Your task to perform on an android device: Open Google Image 0: 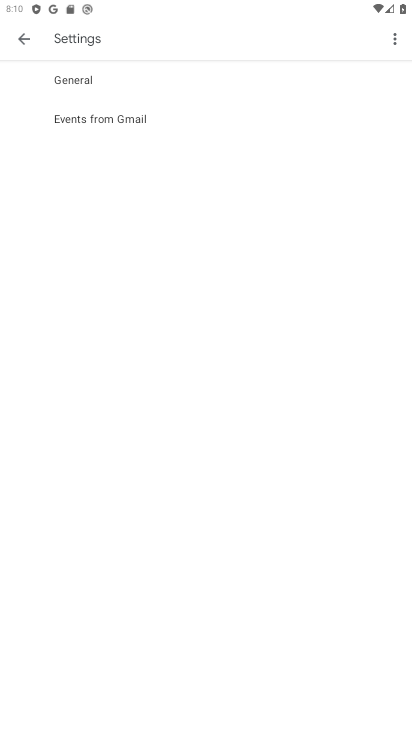
Step 0: press home button
Your task to perform on an android device: Open Google Image 1: 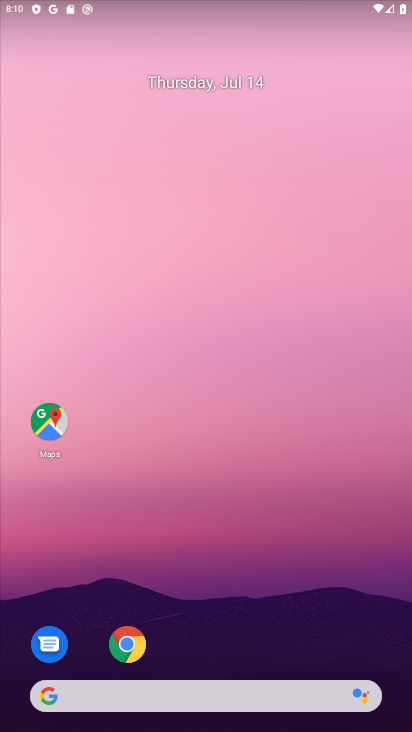
Step 1: drag from (220, 683) to (285, 97)
Your task to perform on an android device: Open Google Image 2: 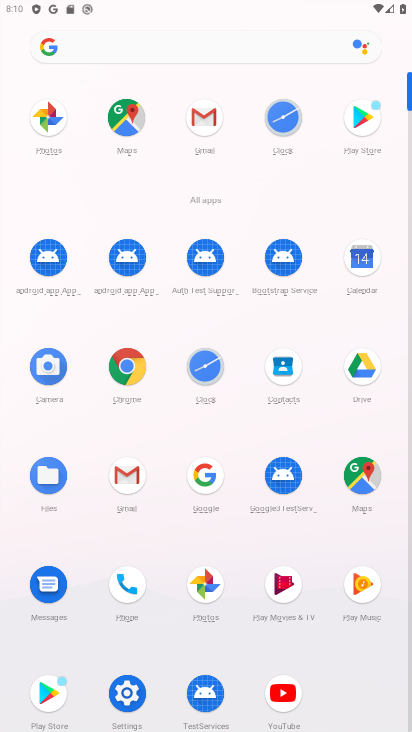
Step 2: click (192, 492)
Your task to perform on an android device: Open Google Image 3: 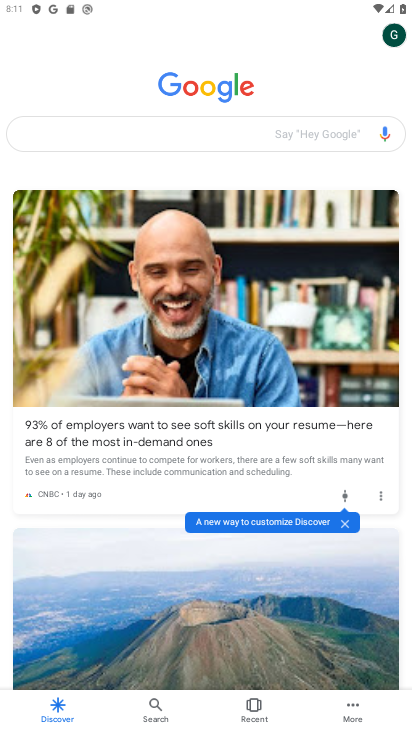
Step 3: task complete